Your task to perform on an android device: Open Amazon Image 0: 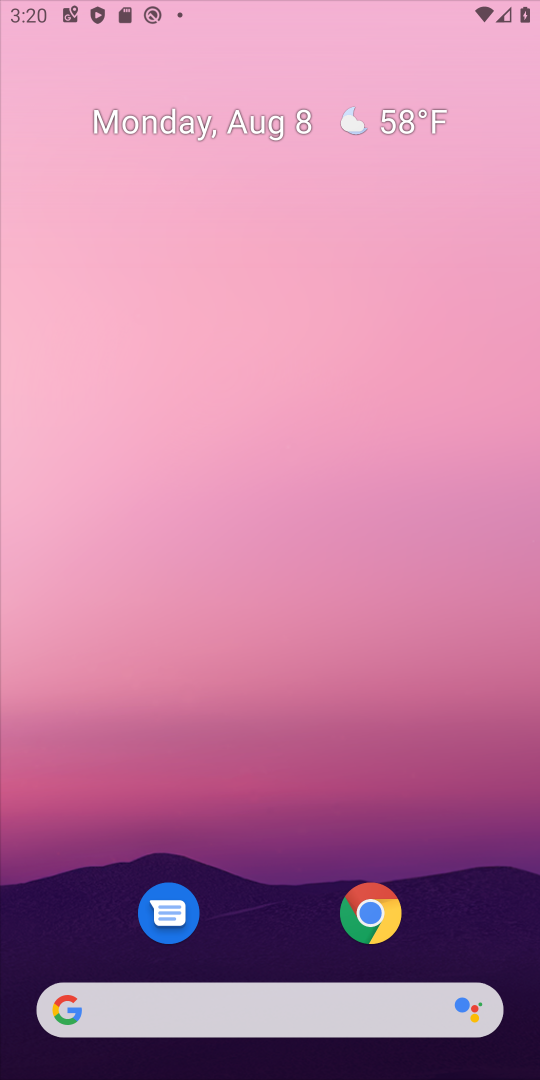
Step 0: press home button
Your task to perform on an android device: Open Amazon Image 1: 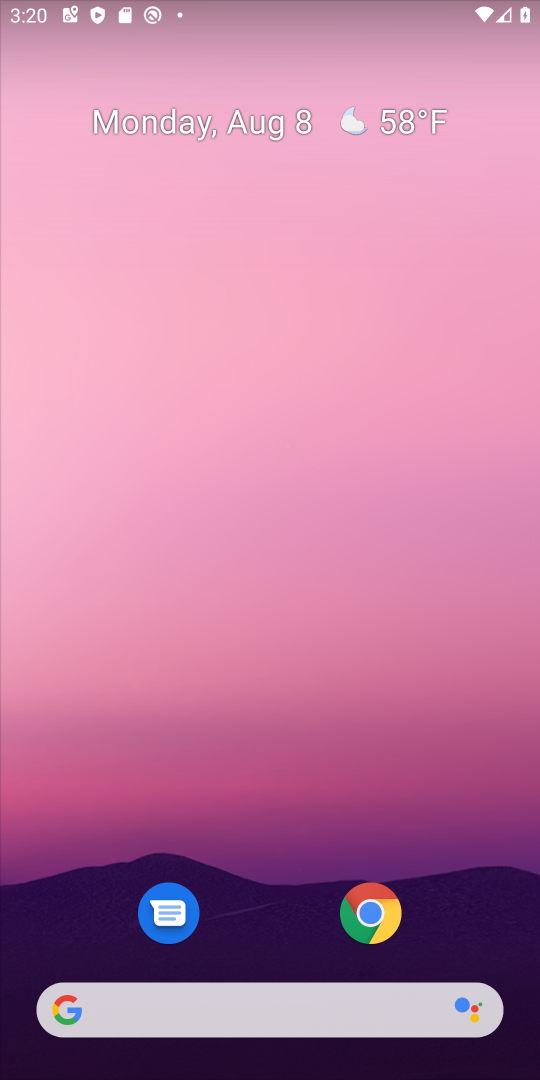
Step 1: drag from (269, 919) to (333, 288)
Your task to perform on an android device: Open Amazon Image 2: 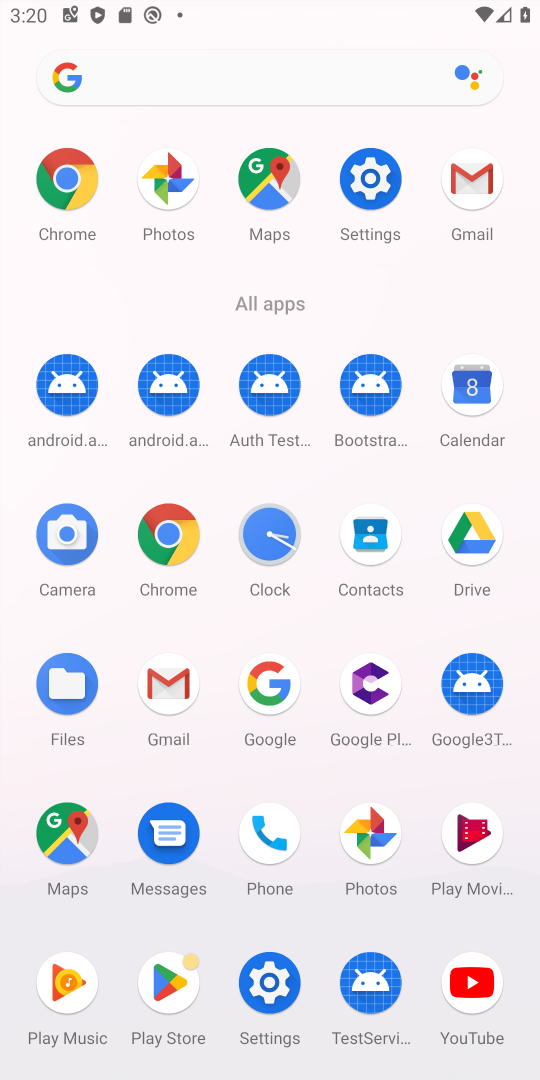
Step 2: click (165, 535)
Your task to perform on an android device: Open Amazon Image 3: 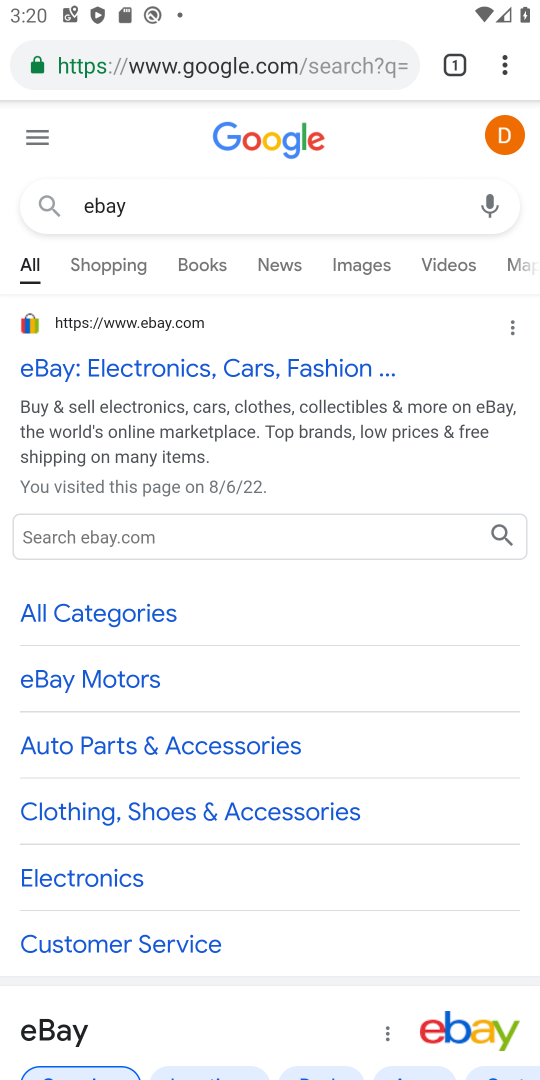
Step 3: click (338, 64)
Your task to perform on an android device: Open Amazon Image 4: 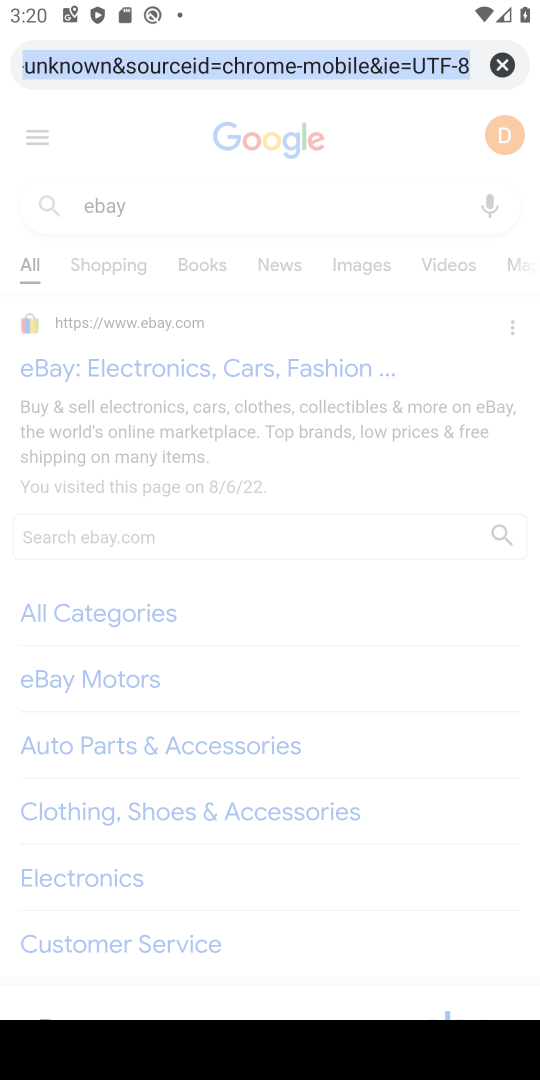
Step 4: type "amazon"
Your task to perform on an android device: Open Amazon Image 5: 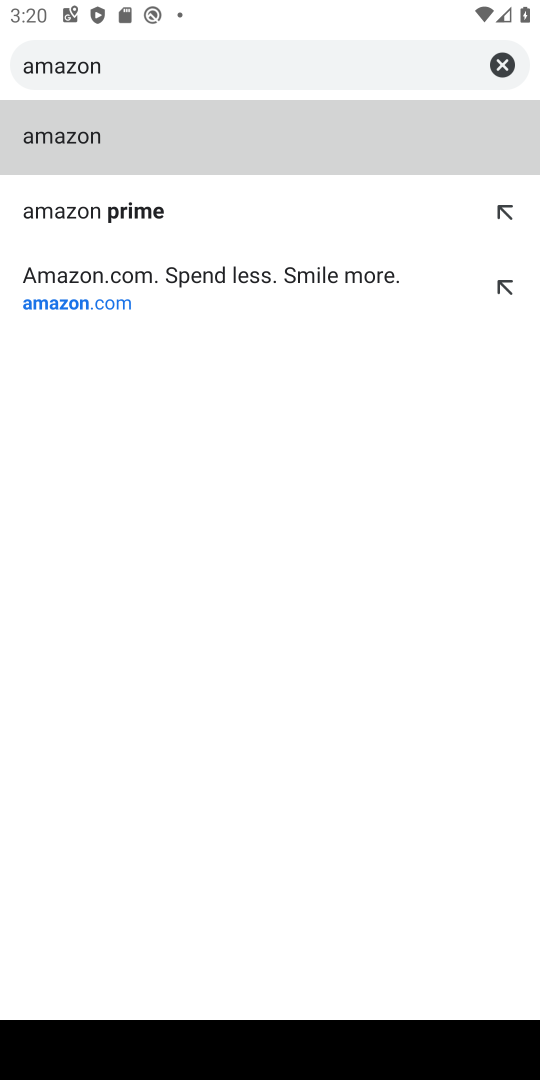
Step 5: click (339, 137)
Your task to perform on an android device: Open Amazon Image 6: 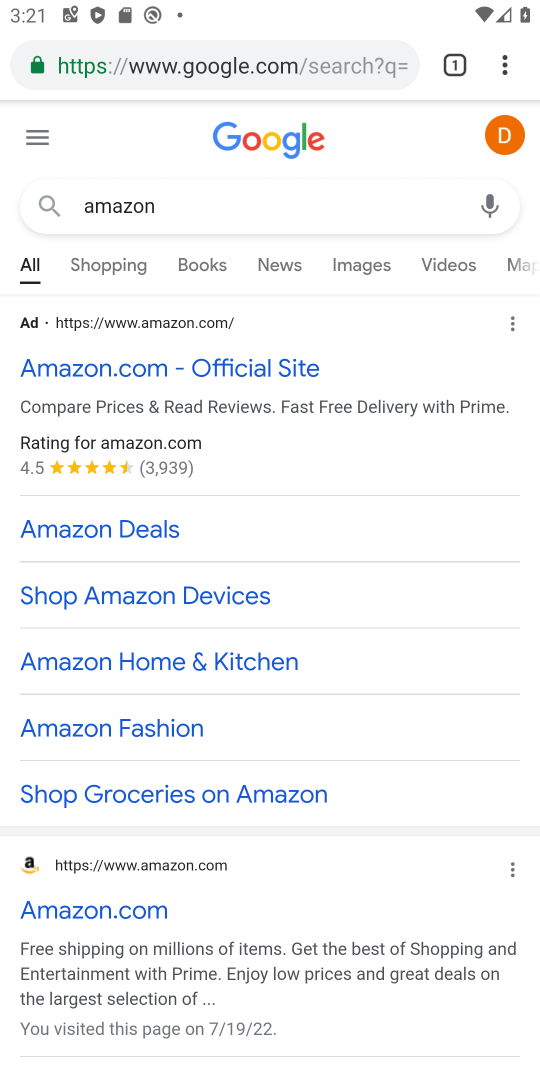
Step 6: task complete